Your task to perform on an android device: toggle sleep mode Image 0: 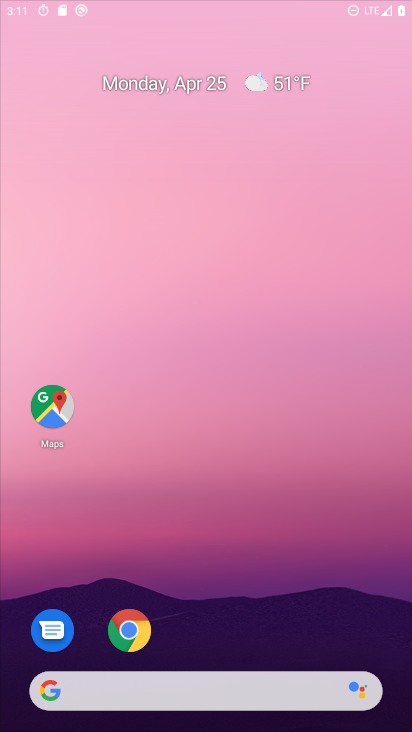
Step 0: drag from (202, 632) to (264, 227)
Your task to perform on an android device: toggle sleep mode Image 1: 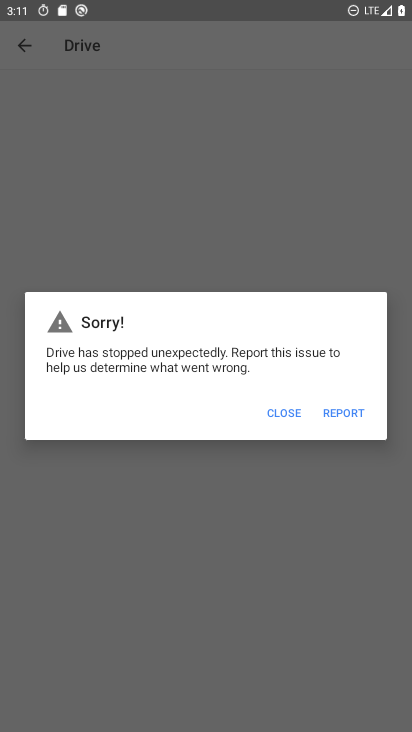
Step 1: press home button
Your task to perform on an android device: toggle sleep mode Image 2: 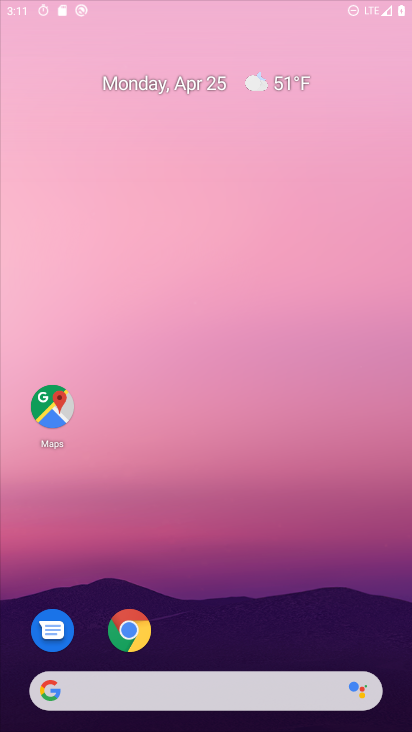
Step 2: drag from (190, 669) to (252, 285)
Your task to perform on an android device: toggle sleep mode Image 3: 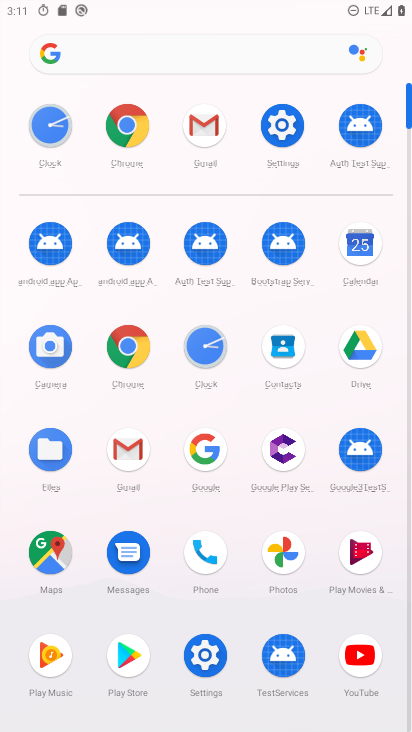
Step 3: click (209, 648)
Your task to perform on an android device: toggle sleep mode Image 4: 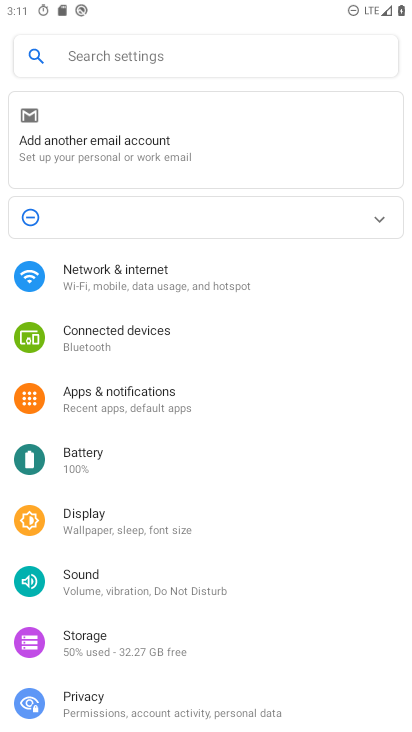
Step 4: click (114, 522)
Your task to perform on an android device: toggle sleep mode Image 5: 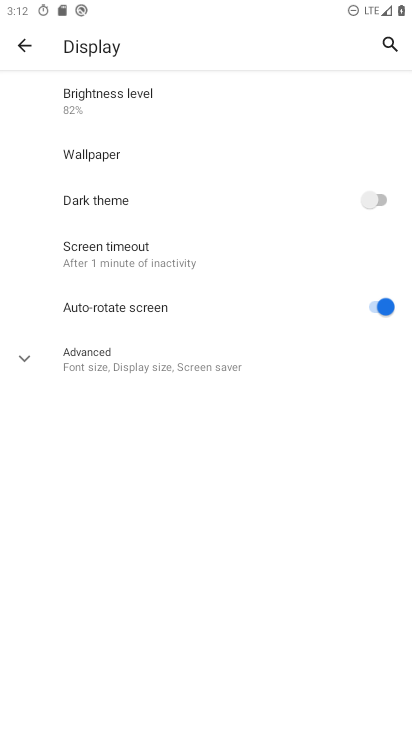
Step 5: click (202, 252)
Your task to perform on an android device: toggle sleep mode Image 6: 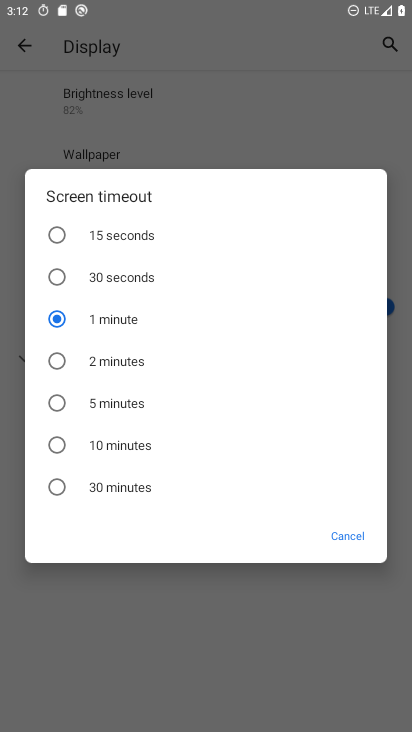
Step 6: click (106, 404)
Your task to perform on an android device: toggle sleep mode Image 7: 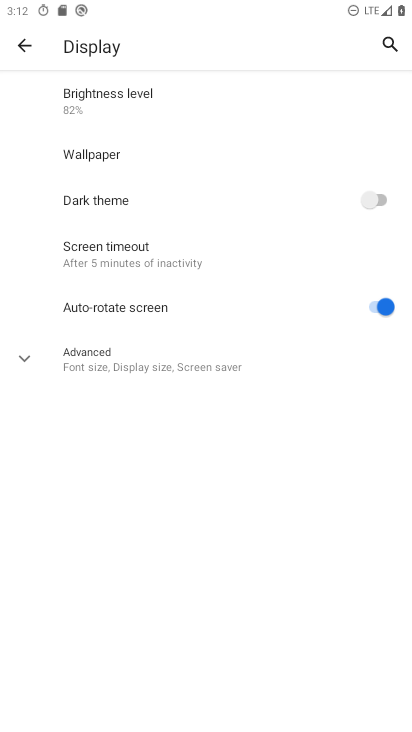
Step 7: task complete